Your task to perform on an android device: change the clock display to analog Image 0: 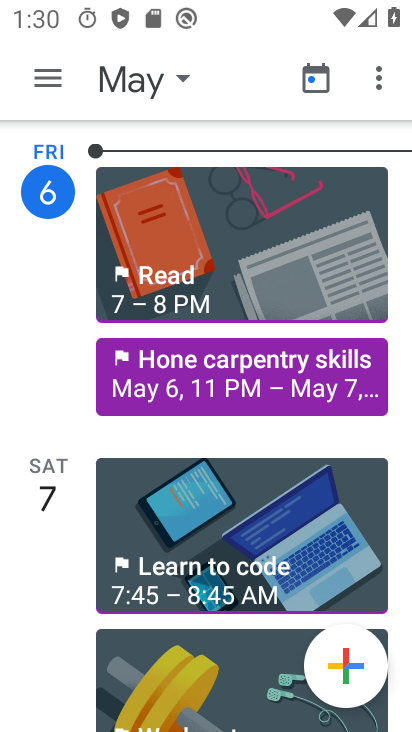
Step 0: press home button
Your task to perform on an android device: change the clock display to analog Image 1: 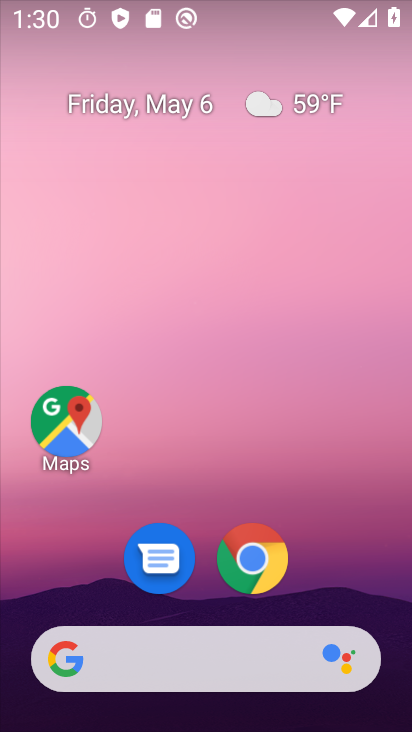
Step 1: drag from (237, 713) to (227, 171)
Your task to perform on an android device: change the clock display to analog Image 2: 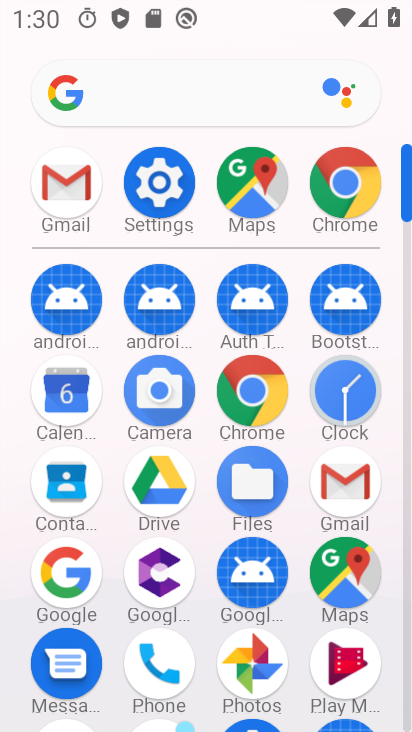
Step 2: click (344, 391)
Your task to perform on an android device: change the clock display to analog Image 3: 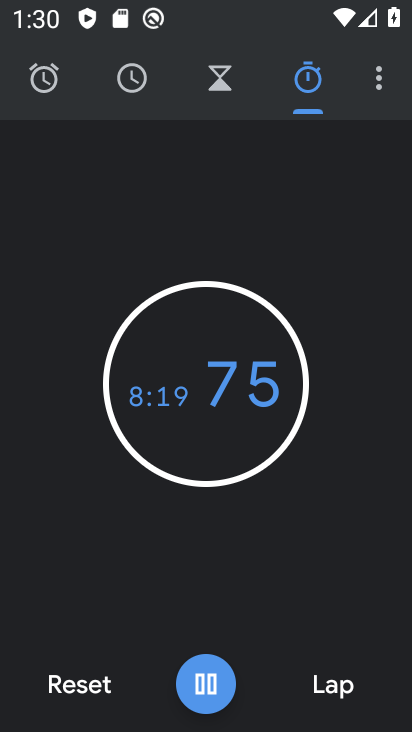
Step 3: click (380, 87)
Your task to perform on an android device: change the clock display to analog Image 4: 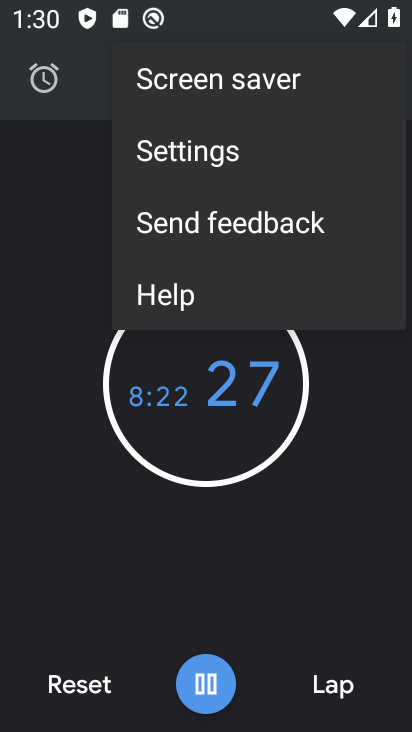
Step 4: click (197, 154)
Your task to perform on an android device: change the clock display to analog Image 5: 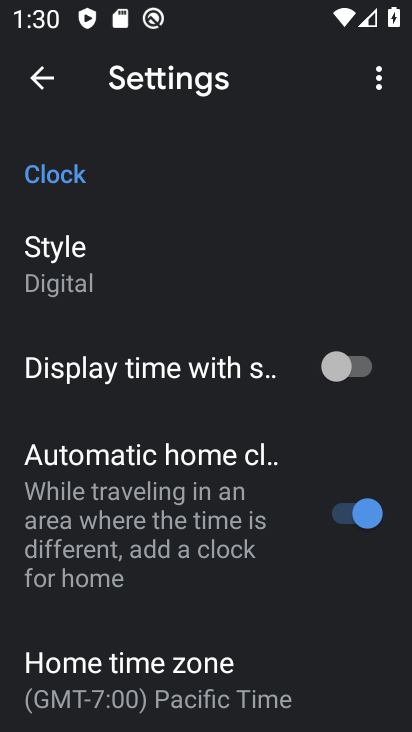
Step 5: click (61, 266)
Your task to perform on an android device: change the clock display to analog Image 6: 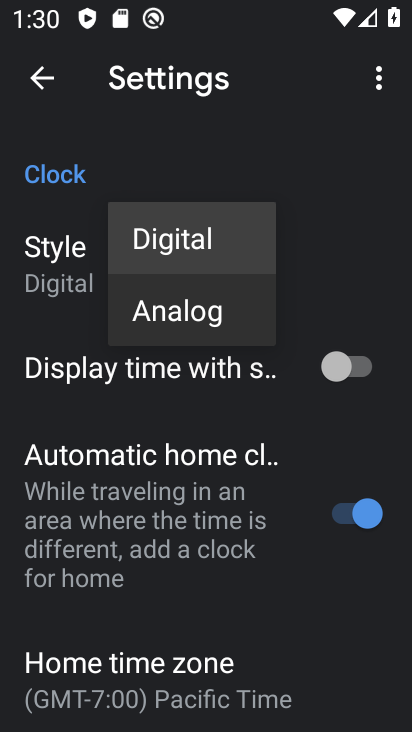
Step 6: click (167, 309)
Your task to perform on an android device: change the clock display to analog Image 7: 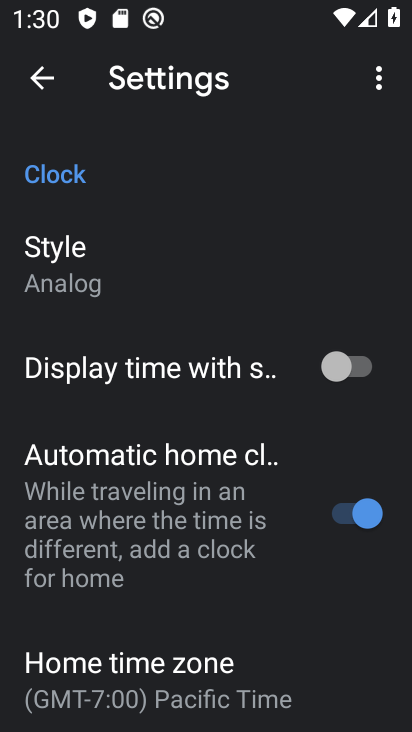
Step 7: task complete